Your task to perform on an android device: Open Chrome and go to the settings page Image 0: 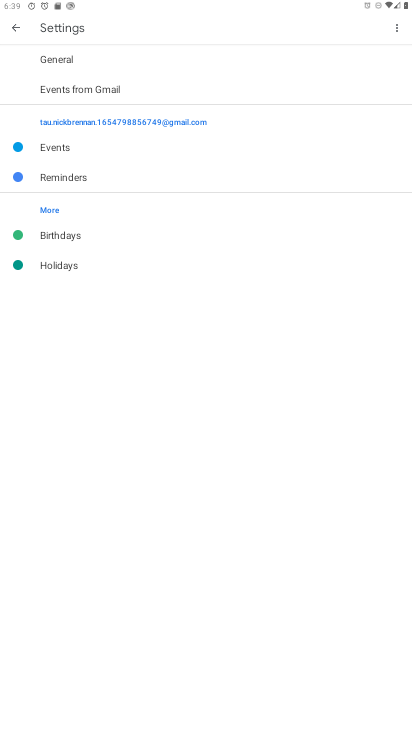
Step 0: drag from (202, 585) to (199, 251)
Your task to perform on an android device: Open Chrome and go to the settings page Image 1: 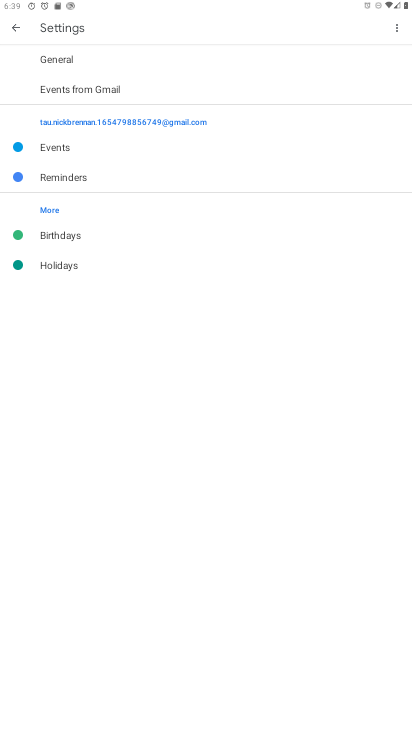
Step 1: press home button
Your task to perform on an android device: Open Chrome and go to the settings page Image 2: 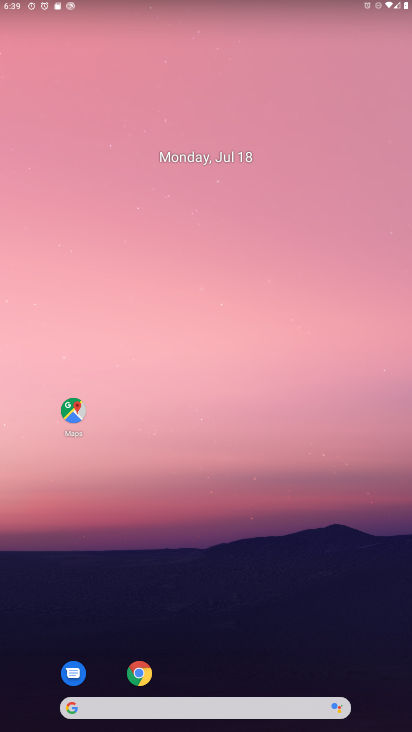
Step 2: drag from (270, 603) to (253, 222)
Your task to perform on an android device: Open Chrome and go to the settings page Image 3: 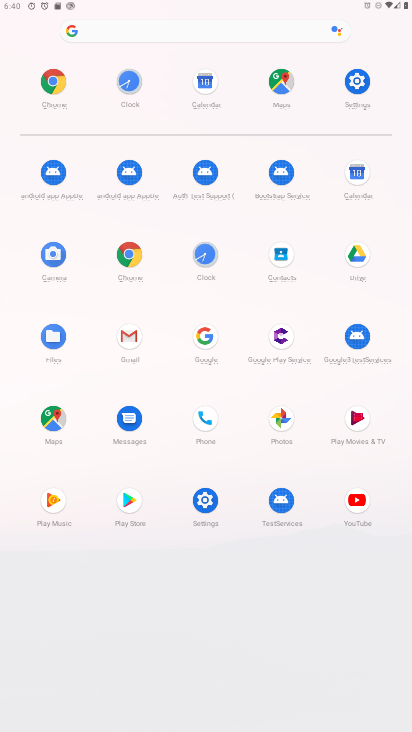
Step 3: click (129, 255)
Your task to perform on an android device: Open Chrome and go to the settings page Image 4: 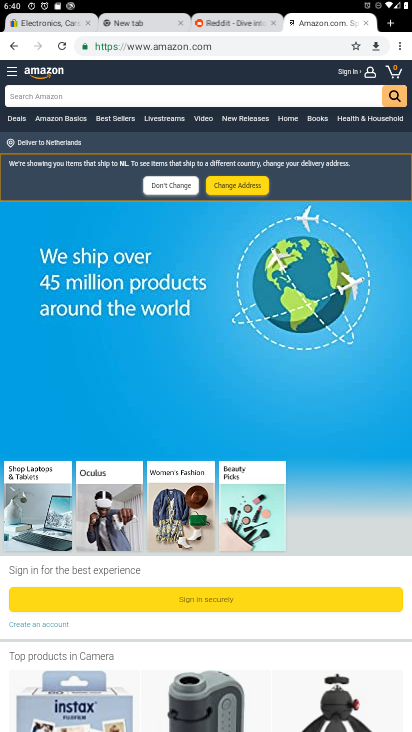
Step 4: click (399, 45)
Your task to perform on an android device: Open Chrome and go to the settings page Image 5: 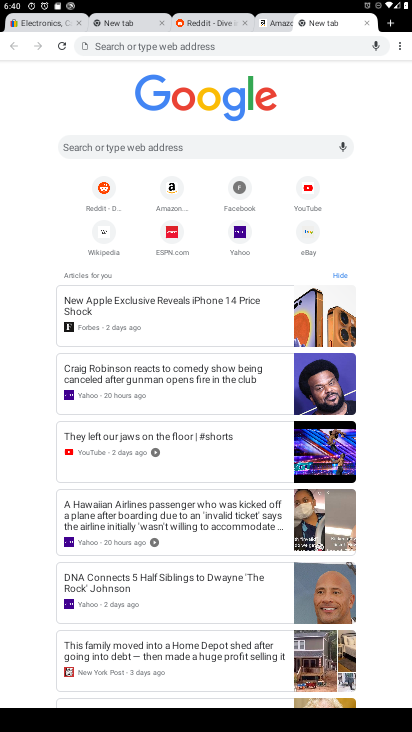
Step 5: click (400, 41)
Your task to perform on an android device: Open Chrome and go to the settings page Image 6: 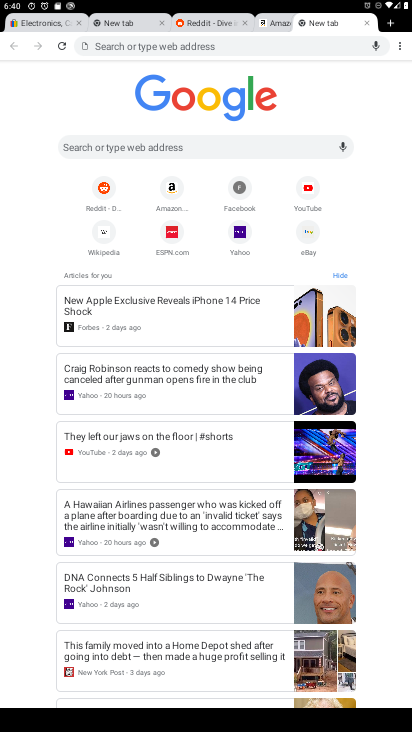
Step 6: click (401, 45)
Your task to perform on an android device: Open Chrome and go to the settings page Image 7: 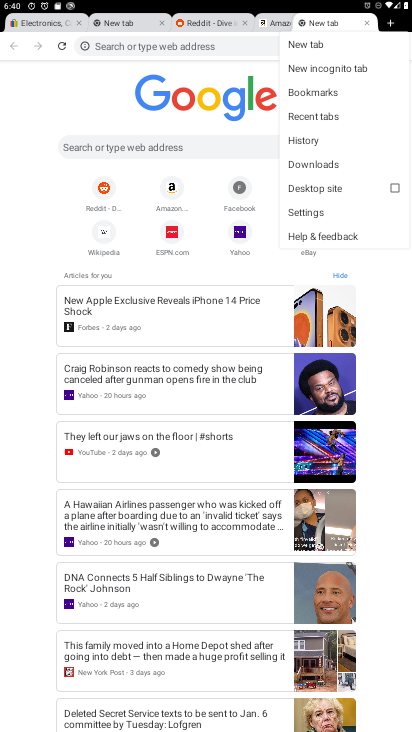
Step 7: click (321, 210)
Your task to perform on an android device: Open Chrome and go to the settings page Image 8: 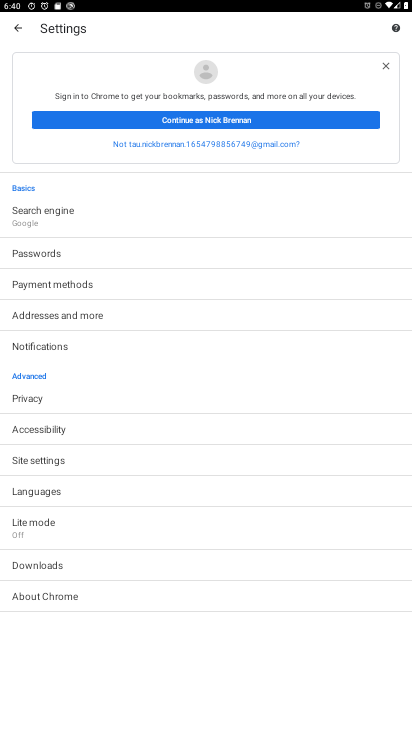
Step 8: task complete